Your task to perform on an android device: Set the phone to "Do not disturb". Image 0: 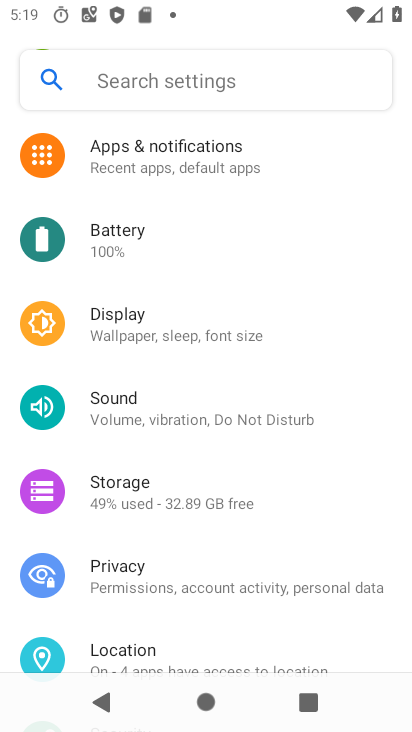
Step 0: drag from (214, 9) to (242, 566)
Your task to perform on an android device: Set the phone to "Do not disturb". Image 1: 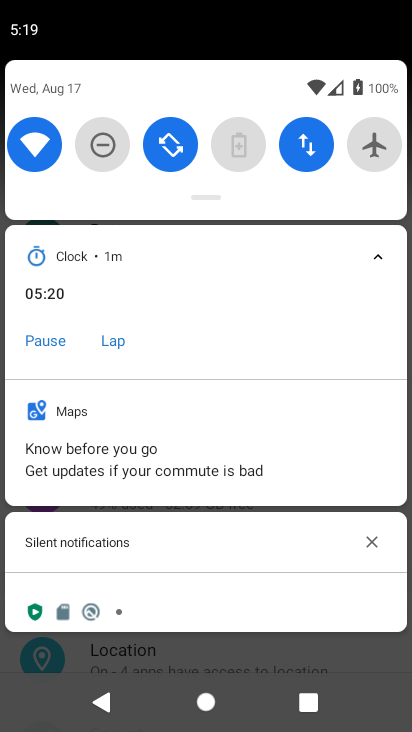
Step 1: click (104, 156)
Your task to perform on an android device: Set the phone to "Do not disturb". Image 2: 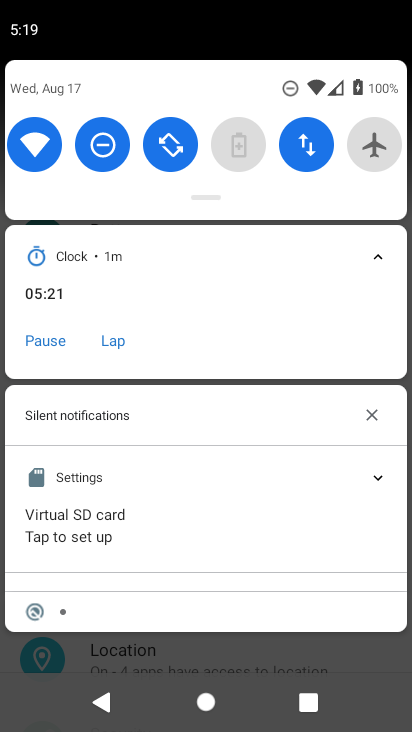
Step 2: task complete